Your task to perform on an android device: find which apps use the phone's location Image 0: 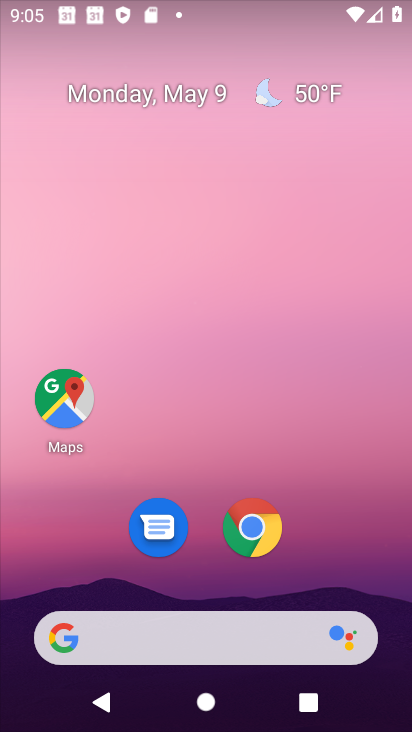
Step 0: drag from (204, 454) to (356, 32)
Your task to perform on an android device: find which apps use the phone's location Image 1: 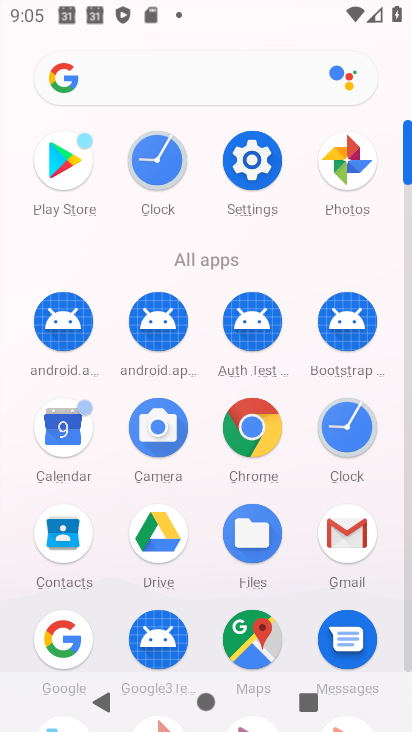
Step 1: click (252, 163)
Your task to perform on an android device: find which apps use the phone's location Image 2: 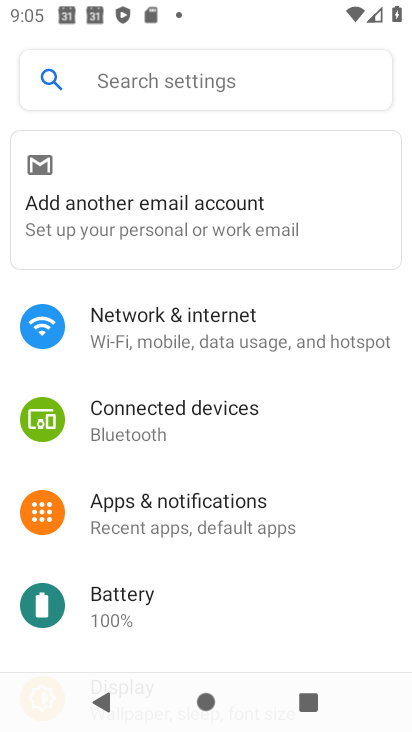
Step 2: drag from (144, 599) to (203, 280)
Your task to perform on an android device: find which apps use the phone's location Image 3: 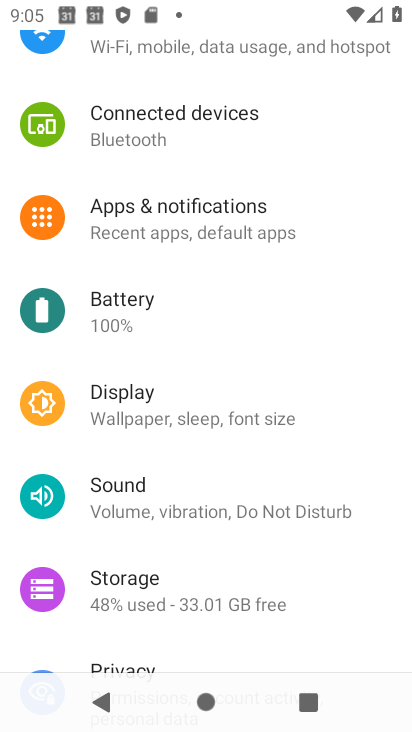
Step 3: drag from (145, 565) to (214, 230)
Your task to perform on an android device: find which apps use the phone's location Image 4: 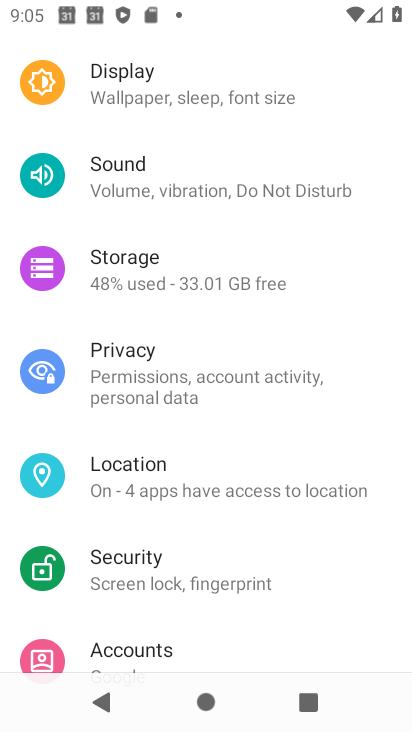
Step 4: click (130, 474)
Your task to perform on an android device: find which apps use the phone's location Image 5: 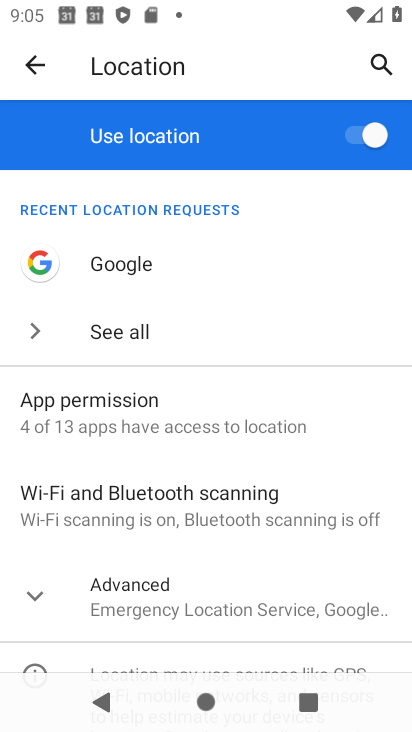
Step 5: click (112, 428)
Your task to perform on an android device: find which apps use the phone's location Image 6: 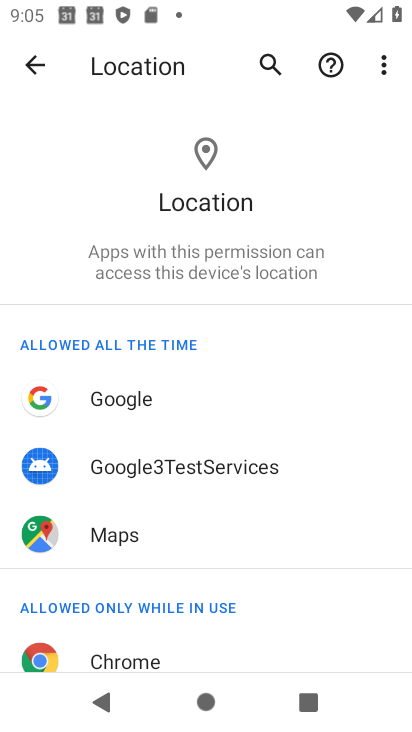
Step 6: task complete